Your task to perform on an android device: set default search engine in the chrome app Image 0: 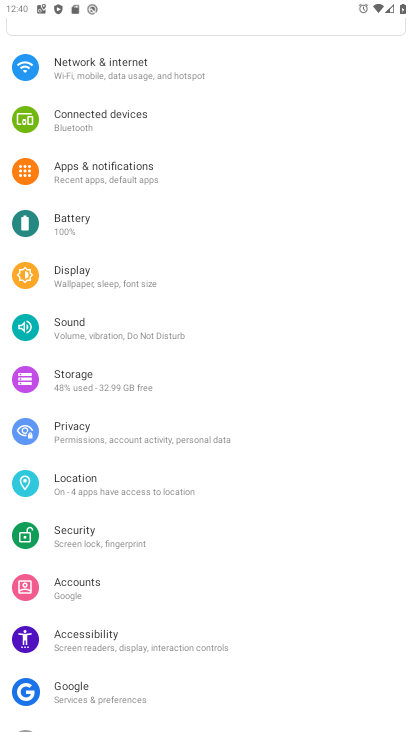
Step 0: press home button
Your task to perform on an android device: set default search engine in the chrome app Image 1: 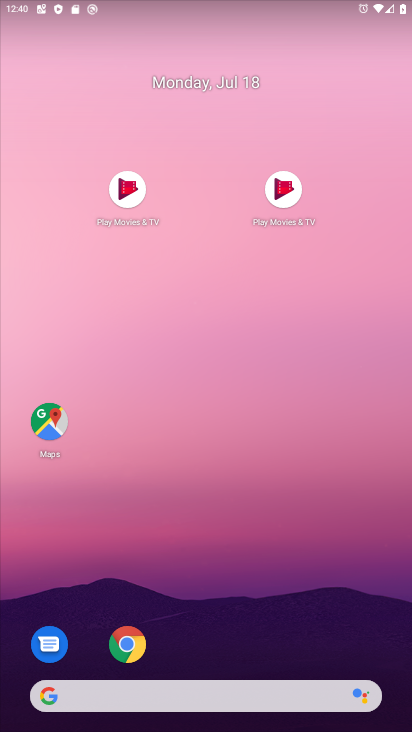
Step 1: drag from (279, 607) to (183, 159)
Your task to perform on an android device: set default search engine in the chrome app Image 2: 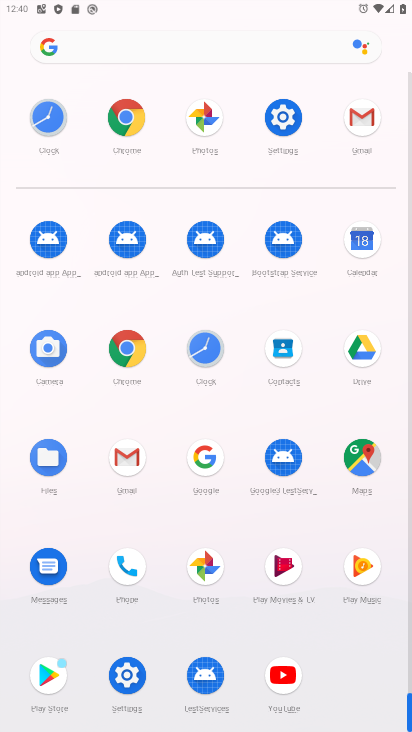
Step 2: click (131, 359)
Your task to perform on an android device: set default search engine in the chrome app Image 3: 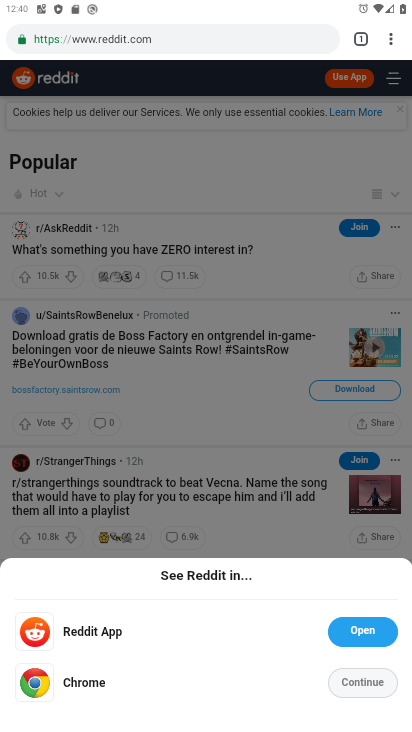
Step 3: drag from (391, 33) to (244, 476)
Your task to perform on an android device: set default search engine in the chrome app Image 4: 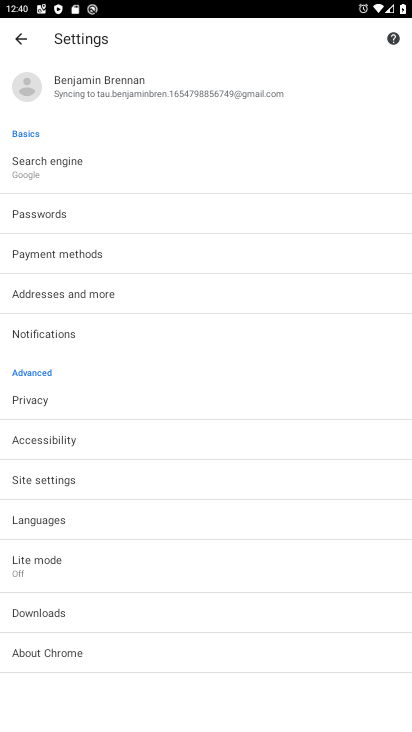
Step 4: click (51, 158)
Your task to perform on an android device: set default search engine in the chrome app Image 5: 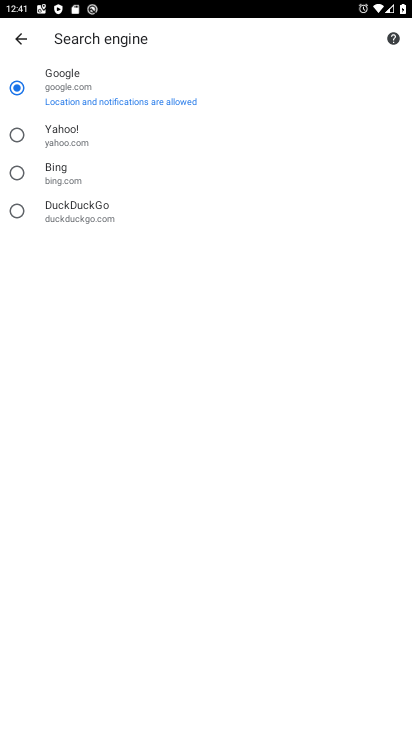
Step 5: task complete